Your task to perform on an android device: Open accessibility settings Image 0: 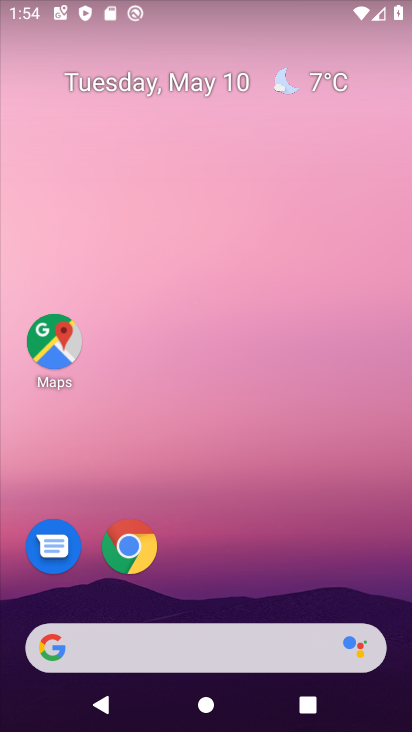
Step 0: drag from (297, 551) to (281, 105)
Your task to perform on an android device: Open accessibility settings Image 1: 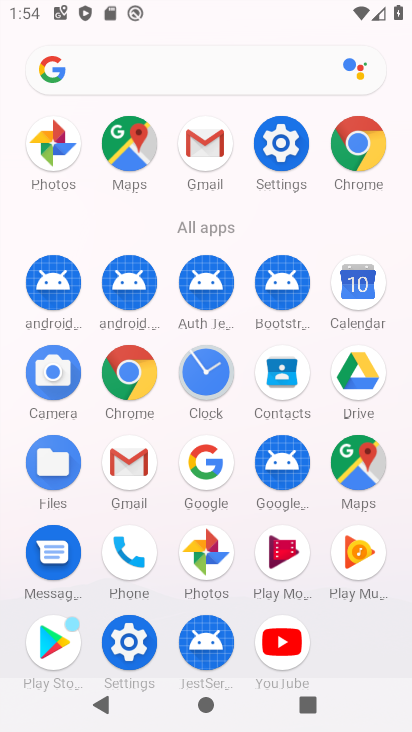
Step 1: click (288, 145)
Your task to perform on an android device: Open accessibility settings Image 2: 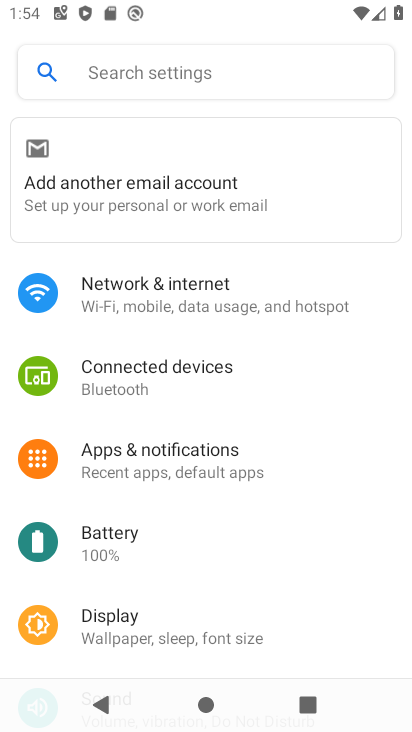
Step 2: drag from (271, 451) to (272, 143)
Your task to perform on an android device: Open accessibility settings Image 3: 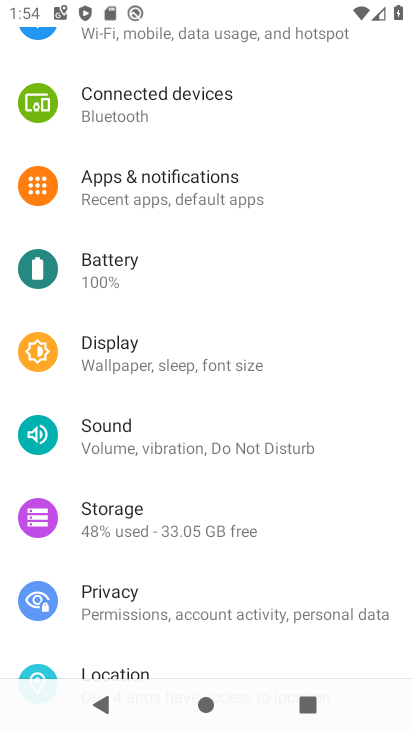
Step 3: drag from (230, 611) to (175, 294)
Your task to perform on an android device: Open accessibility settings Image 4: 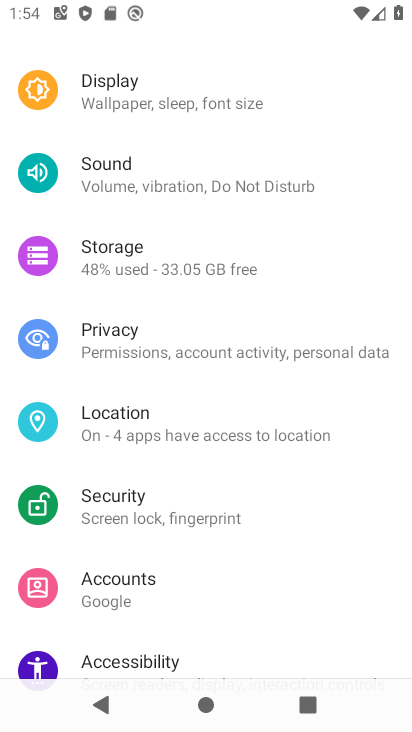
Step 4: drag from (190, 611) to (211, 271)
Your task to perform on an android device: Open accessibility settings Image 5: 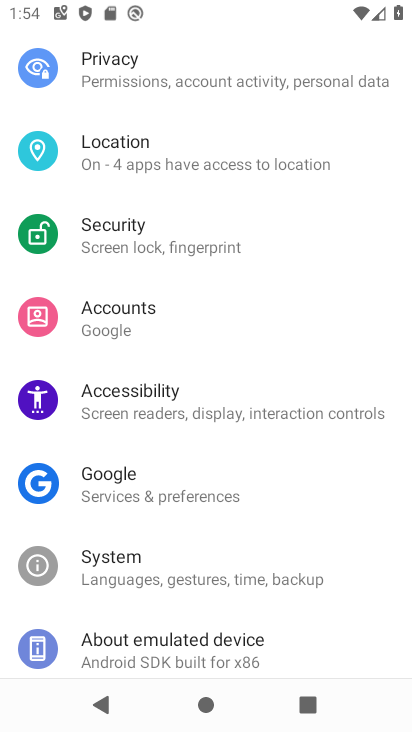
Step 5: click (153, 403)
Your task to perform on an android device: Open accessibility settings Image 6: 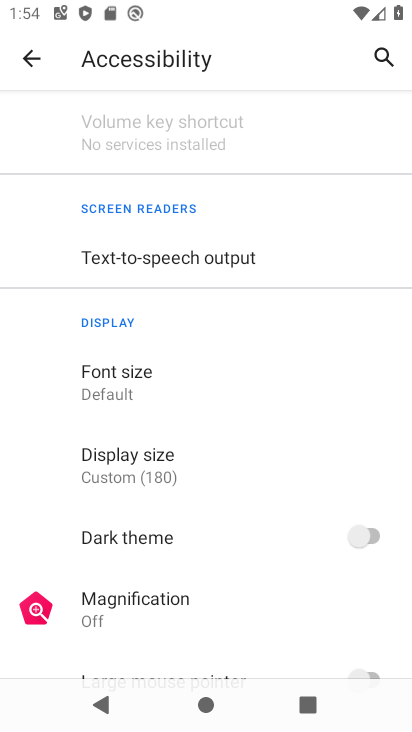
Step 6: task complete